Your task to perform on an android device: turn off translation in the chrome app Image 0: 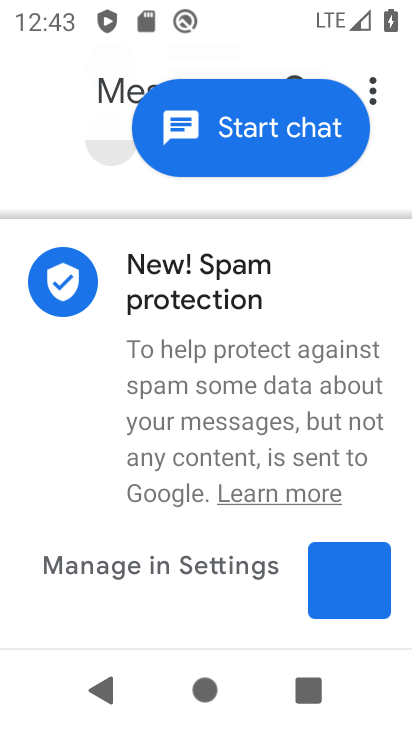
Step 0: press home button
Your task to perform on an android device: turn off translation in the chrome app Image 1: 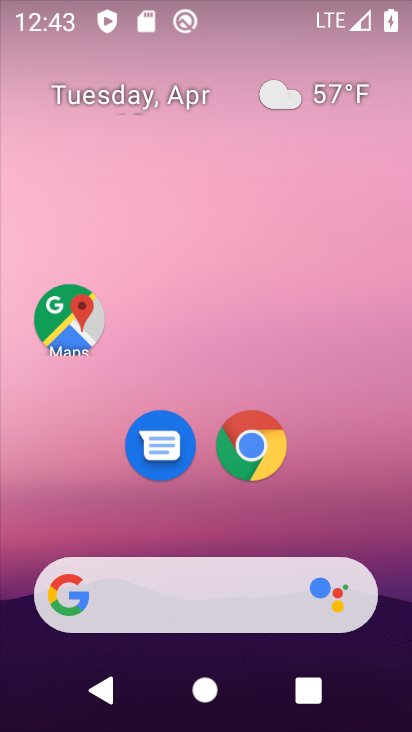
Step 1: click (274, 451)
Your task to perform on an android device: turn off translation in the chrome app Image 2: 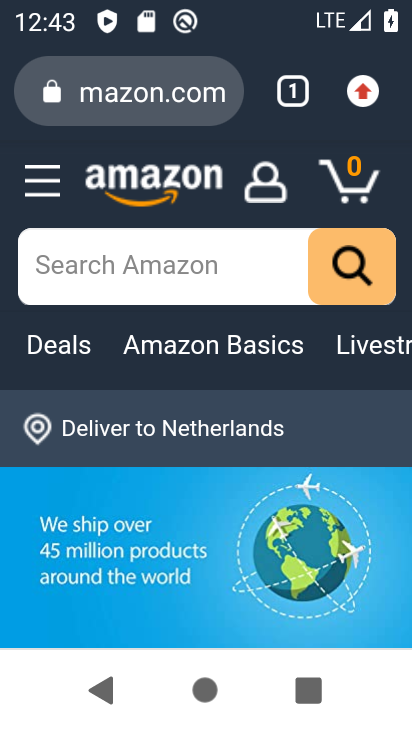
Step 2: click (365, 86)
Your task to perform on an android device: turn off translation in the chrome app Image 3: 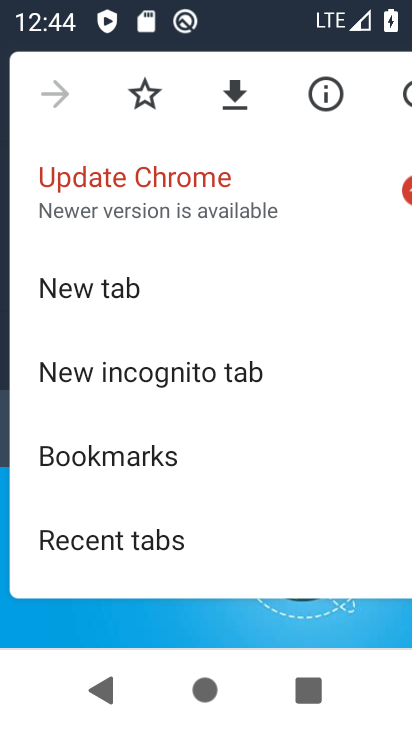
Step 3: drag from (228, 491) to (272, 263)
Your task to perform on an android device: turn off translation in the chrome app Image 4: 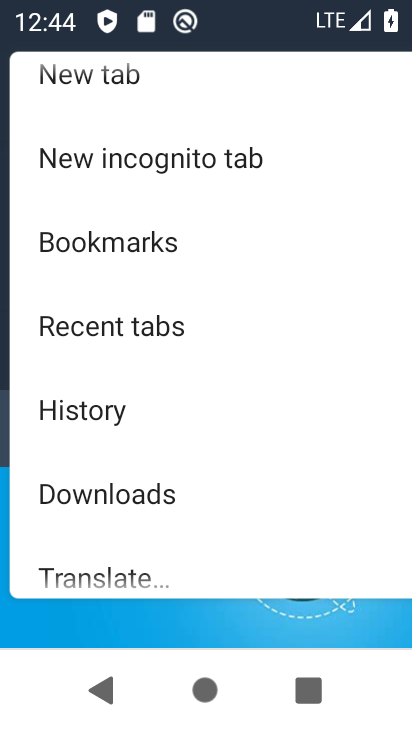
Step 4: drag from (197, 431) to (247, 231)
Your task to perform on an android device: turn off translation in the chrome app Image 5: 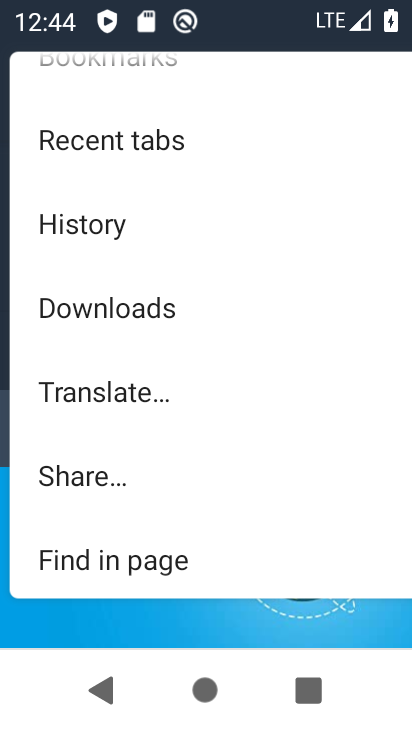
Step 5: drag from (185, 462) to (228, 236)
Your task to perform on an android device: turn off translation in the chrome app Image 6: 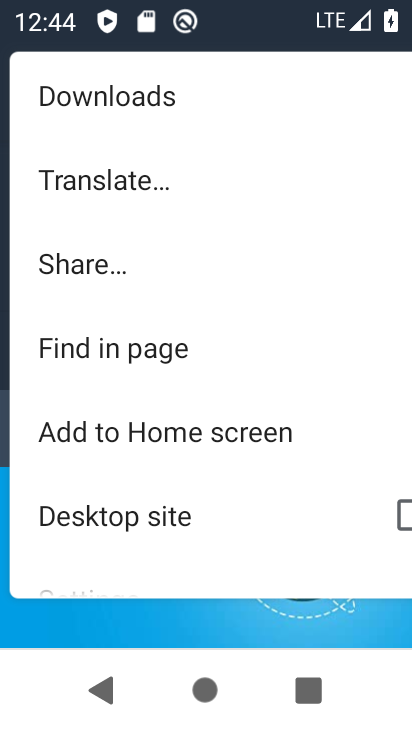
Step 6: drag from (212, 469) to (292, 122)
Your task to perform on an android device: turn off translation in the chrome app Image 7: 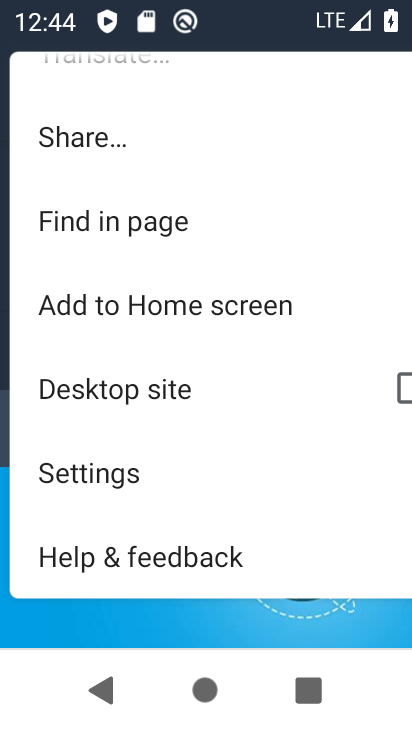
Step 7: click (118, 466)
Your task to perform on an android device: turn off translation in the chrome app Image 8: 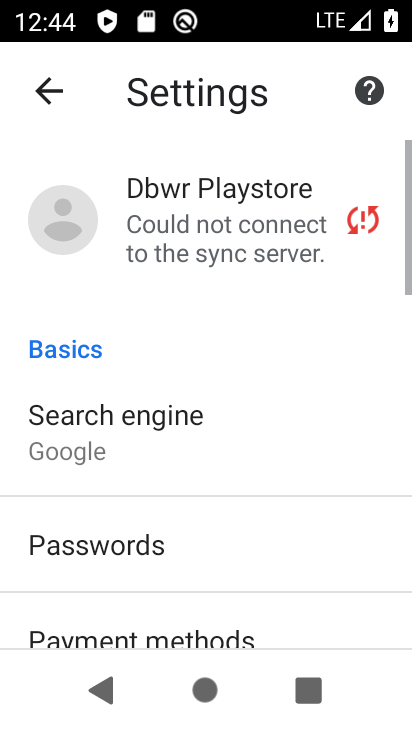
Step 8: drag from (240, 567) to (321, 167)
Your task to perform on an android device: turn off translation in the chrome app Image 9: 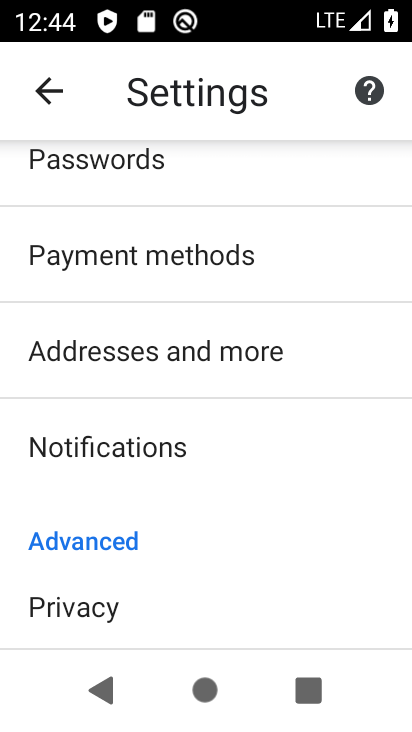
Step 9: drag from (227, 563) to (290, 168)
Your task to perform on an android device: turn off translation in the chrome app Image 10: 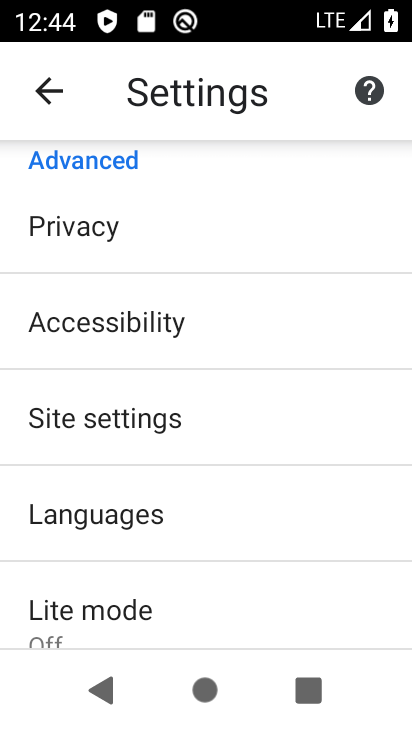
Step 10: click (153, 501)
Your task to perform on an android device: turn off translation in the chrome app Image 11: 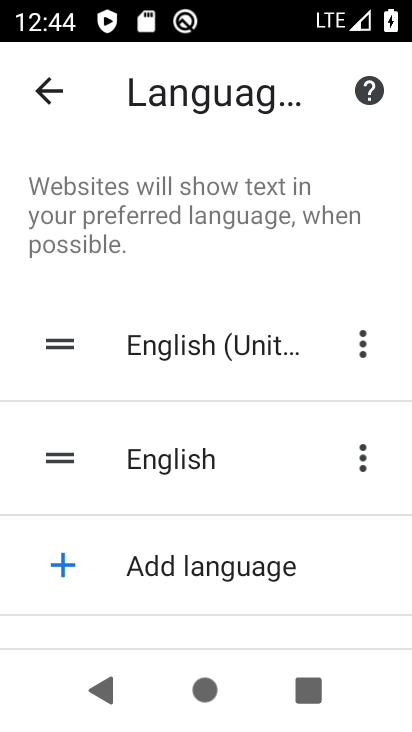
Step 11: task complete